Your task to perform on an android device: Go to settings Image 0: 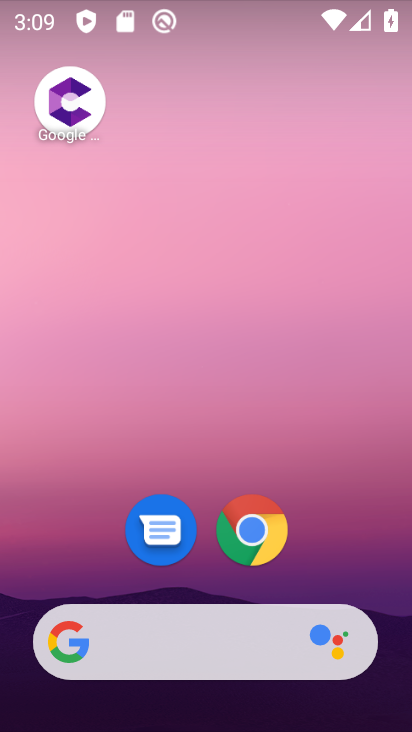
Step 0: drag from (70, 599) to (173, 165)
Your task to perform on an android device: Go to settings Image 1: 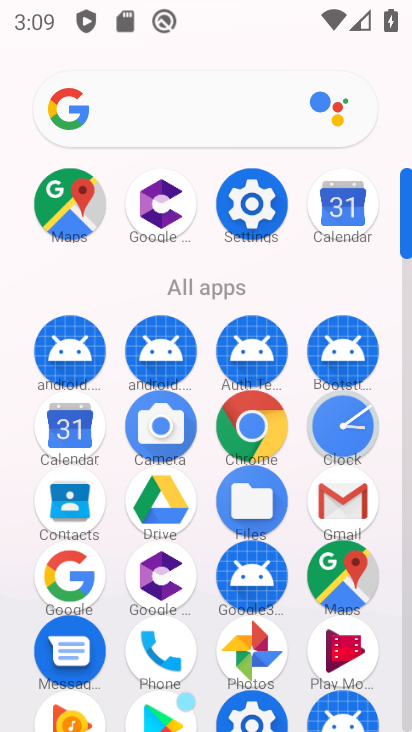
Step 1: drag from (111, 589) to (183, 320)
Your task to perform on an android device: Go to settings Image 2: 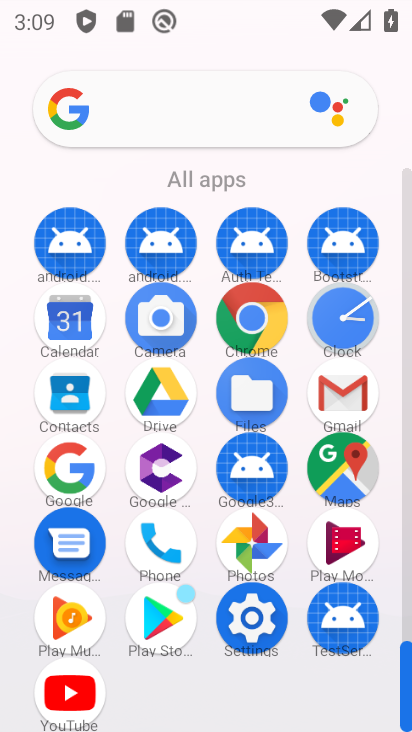
Step 2: click (243, 624)
Your task to perform on an android device: Go to settings Image 3: 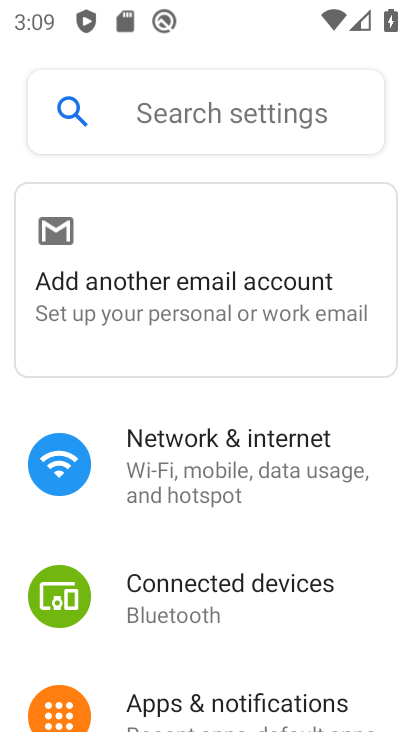
Step 3: task complete